Your task to perform on an android device: Go to accessibility settings Image 0: 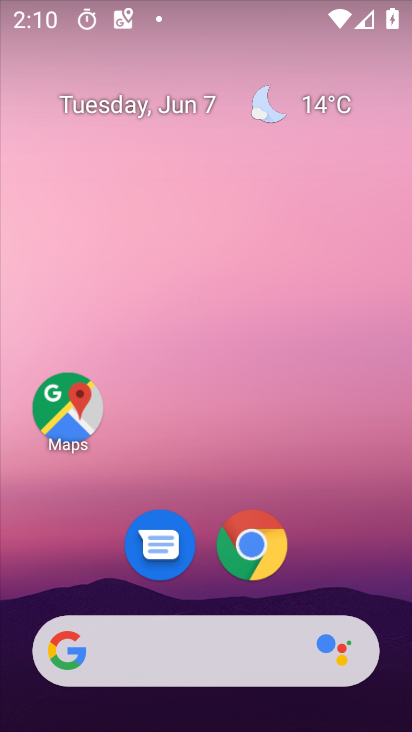
Step 0: drag from (345, 422) to (345, 4)
Your task to perform on an android device: Go to accessibility settings Image 1: 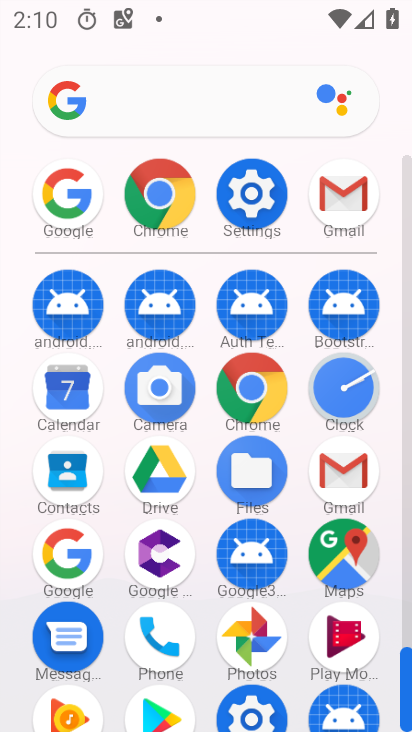
Step 1: click (244, 194)
Your task to perform on an android device: Go to accessibility settings Image 2: 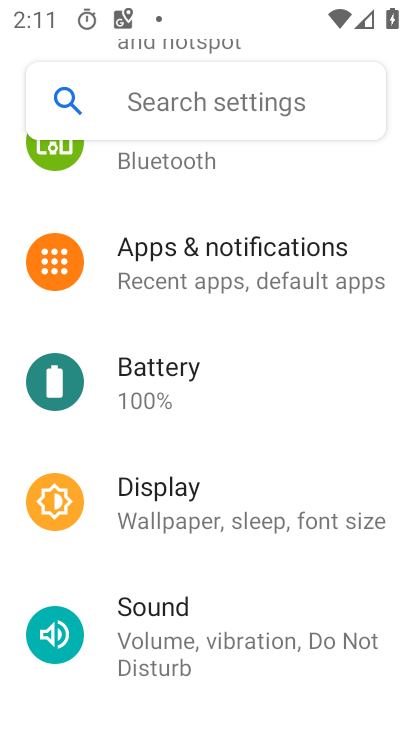
Step 2: drag from (309, 297) to (312, 185)
Your task to perform on an android device: Go to accessibility settings Image 3: 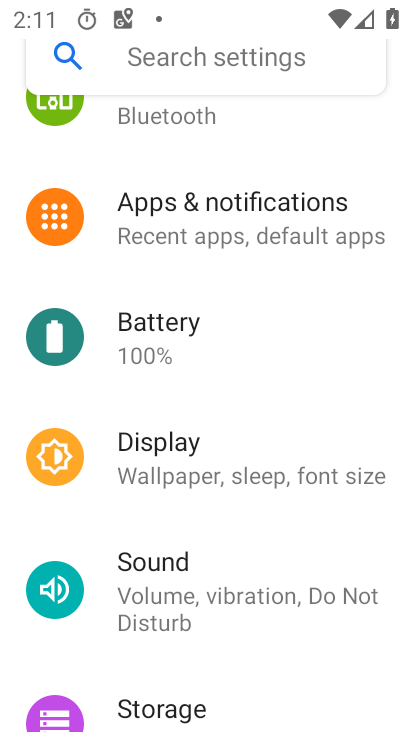
Step 3: drag from (244, 544) to (269, 119)
Your task to perform on an android device: Go to accessibility settings Image 4: 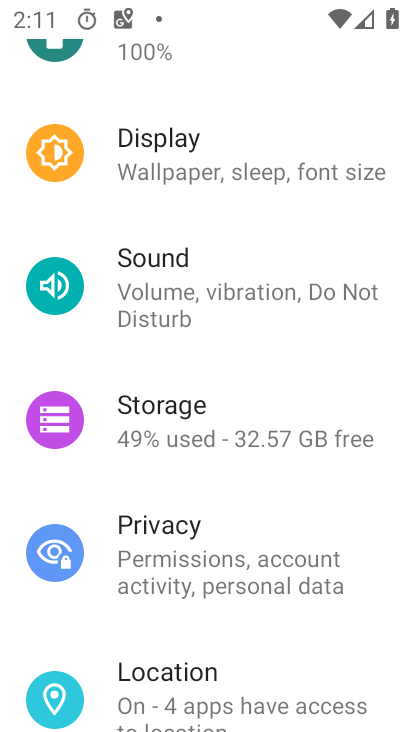
Step 4: drag from (275, 596) to (287, 108)
Your task to perform on an android device: Go to accessibility settings Image 5: 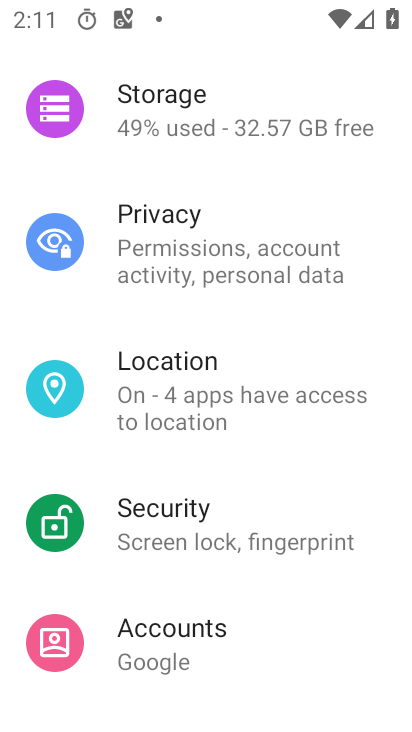
Step 5: drag from (305, 647) to (322, 174)
Your task to perform on an android device: Go to accessibility settings Image 6: 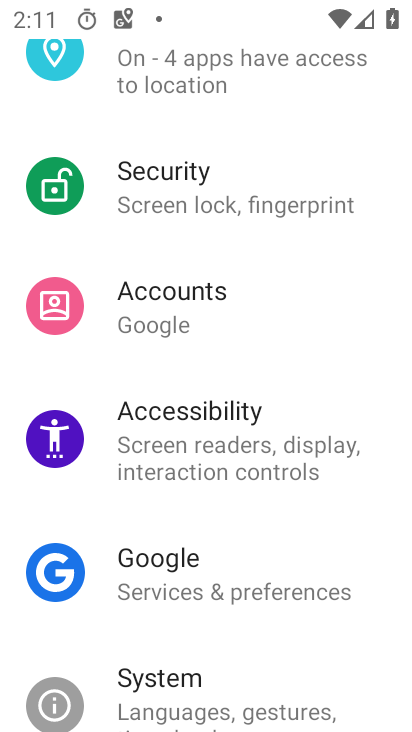
Step 6: click (302, 438)
Your task to perform on an android device: Go to accessibility settings Image 7: 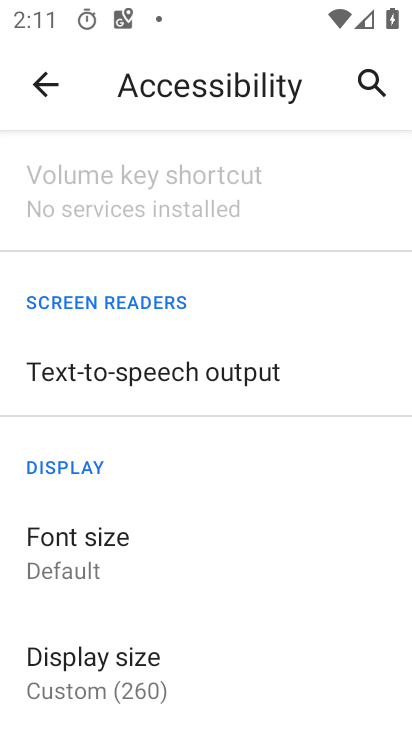
Step 7: task complete